Your task to perform on an android device: change the clock display to show seconds Image 0: 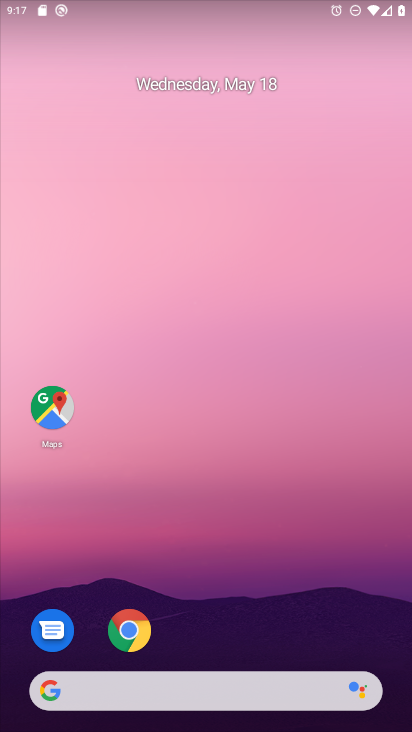
Step 0: drag from (206, 658) to (168, 47)
Your task to perform on an android device: change the clock display to show seconds Image 1: 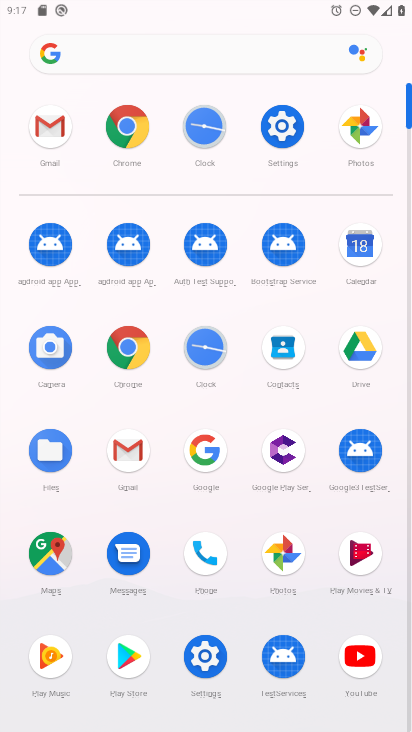
Step 1: click (212, 350)
Your task to perform on an android device: change the clock display to show seconds Image 2: 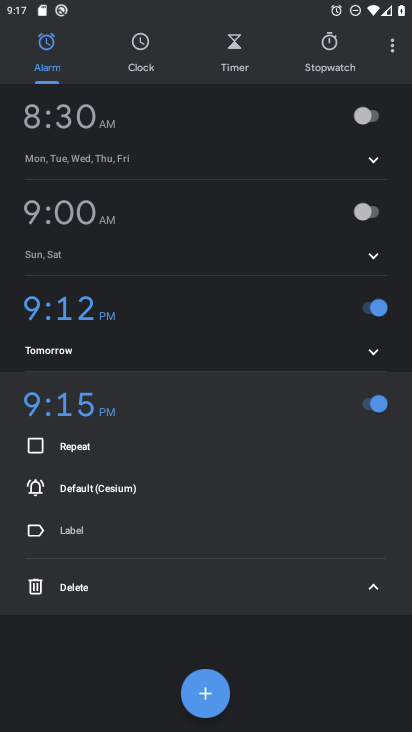
Step 2: click (393, 42)
Your task to perform on an android device: change the clock display to show seconds Image 3: 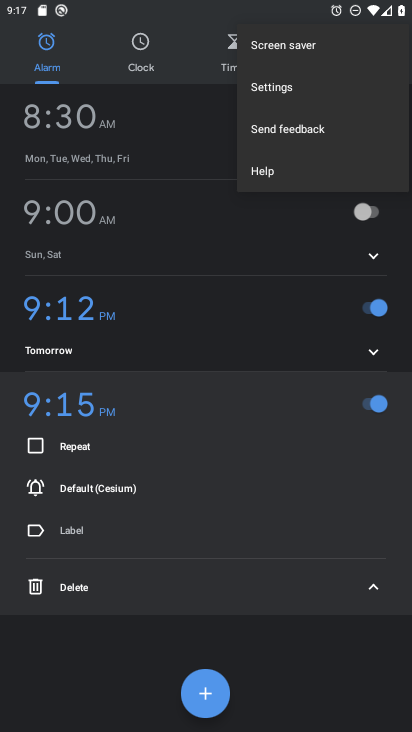
Step 3: click (294, 91)
Your task to perform on an android device: change the clock display to show seconds Image 4: 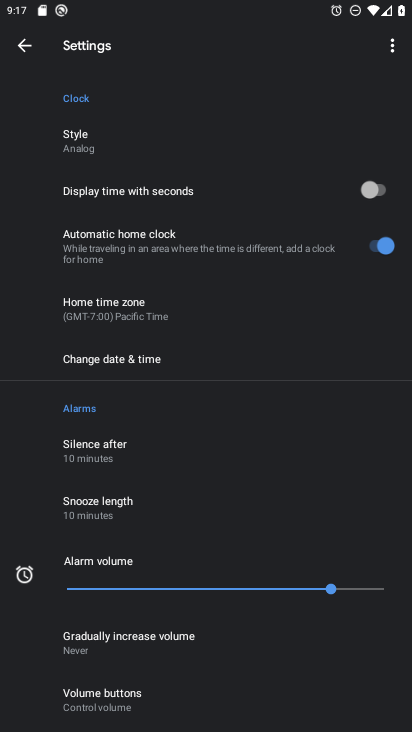
Step 4: click (374, 182)
Your task to perform on an android device: change the clock display to show seconds Image 5: 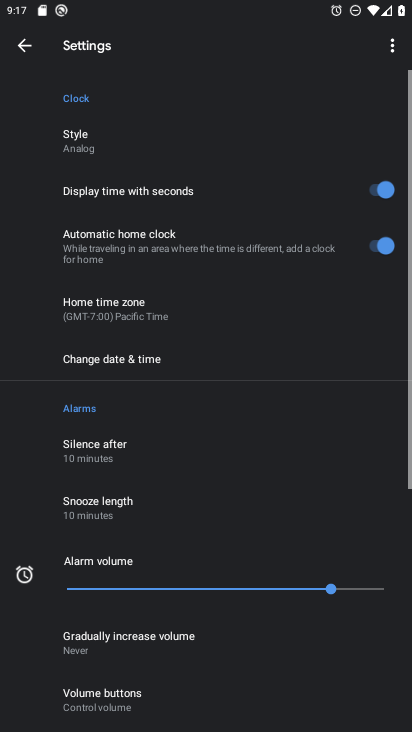
Step 5: task complete